Your task to perform on an android device: delete the emails in spam in the gmail app Image 0: 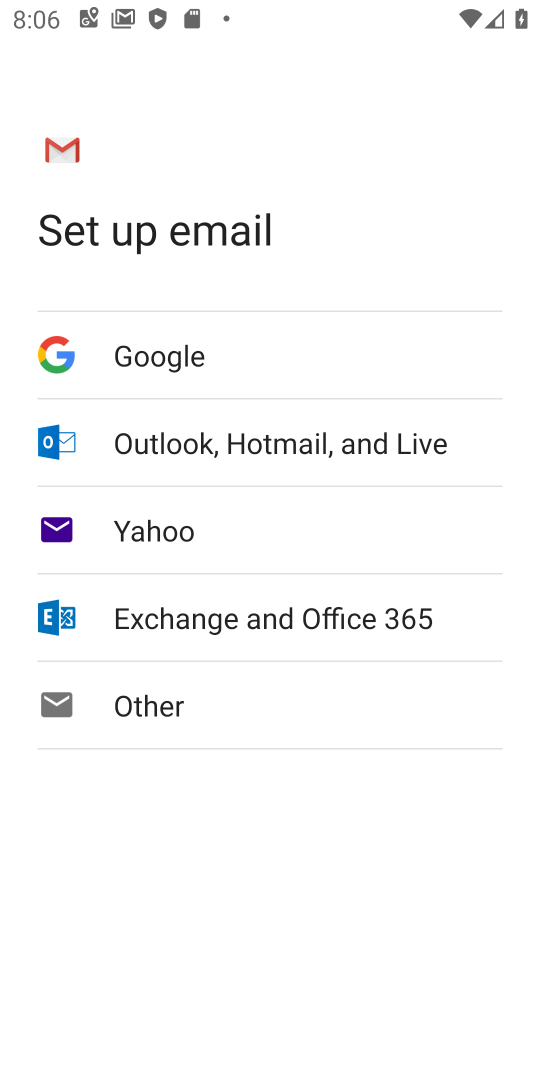
Step 0: press home button
Your task to perform on an android device: delete the emails in spam in the gmail app Image 1: 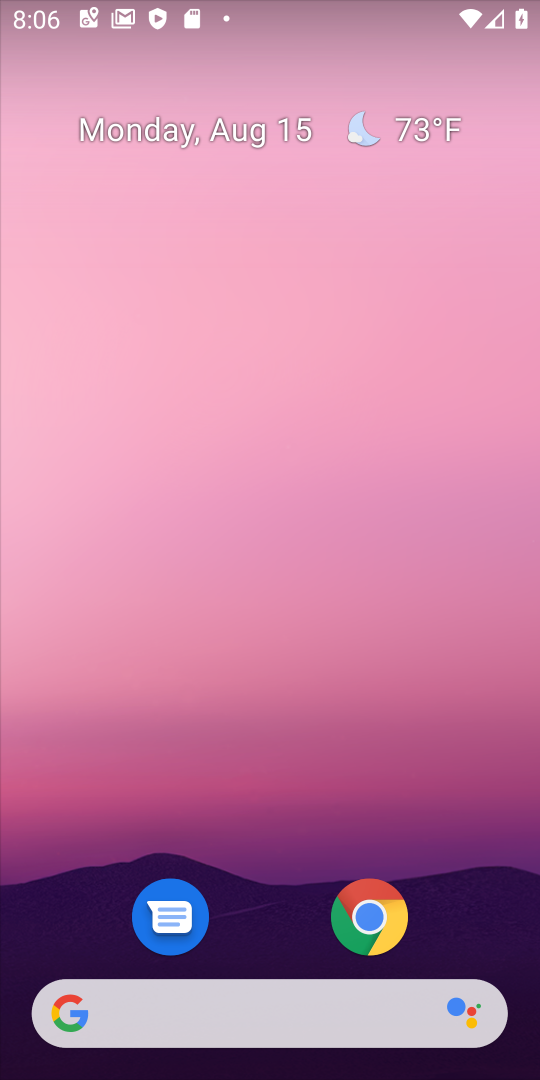
Step 1: drag from (278, 851) to (234, 26)
Your task to perform on an android device: delete the emails in spam in the gmail app Image 2: 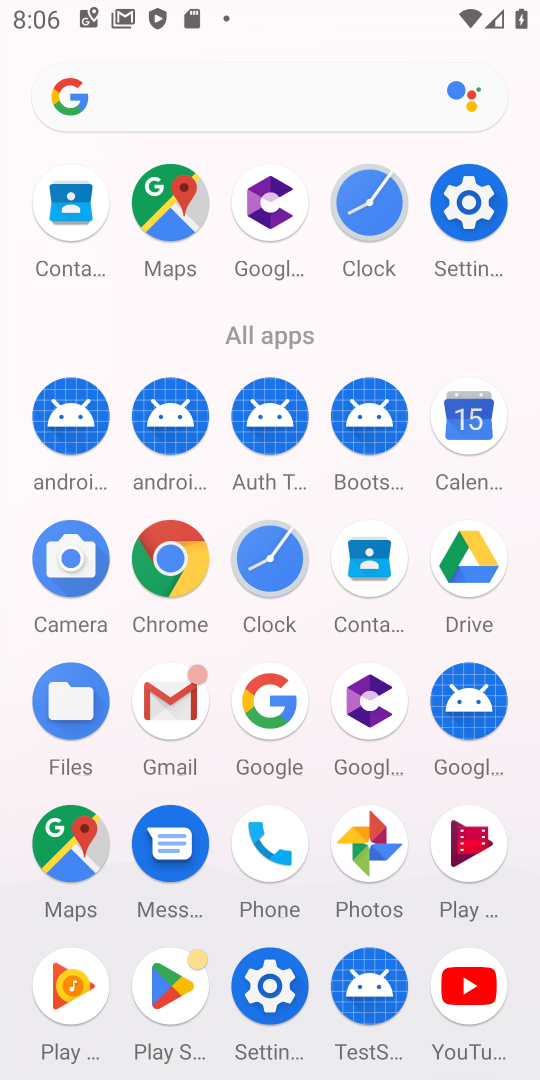
Step 2: click (172, 694)
Your task to perform on an android device: delete the emails in spam in the gmail app Image 3: 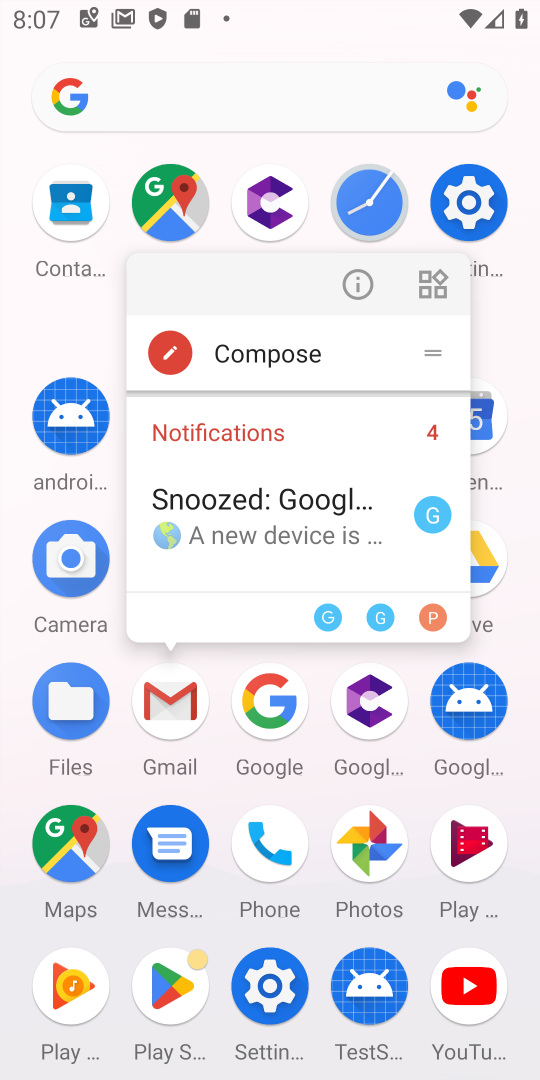
Step 3: click (179, 691)
Your task to perform on an android device: delete the emails in spam in the gmail app Image 4: 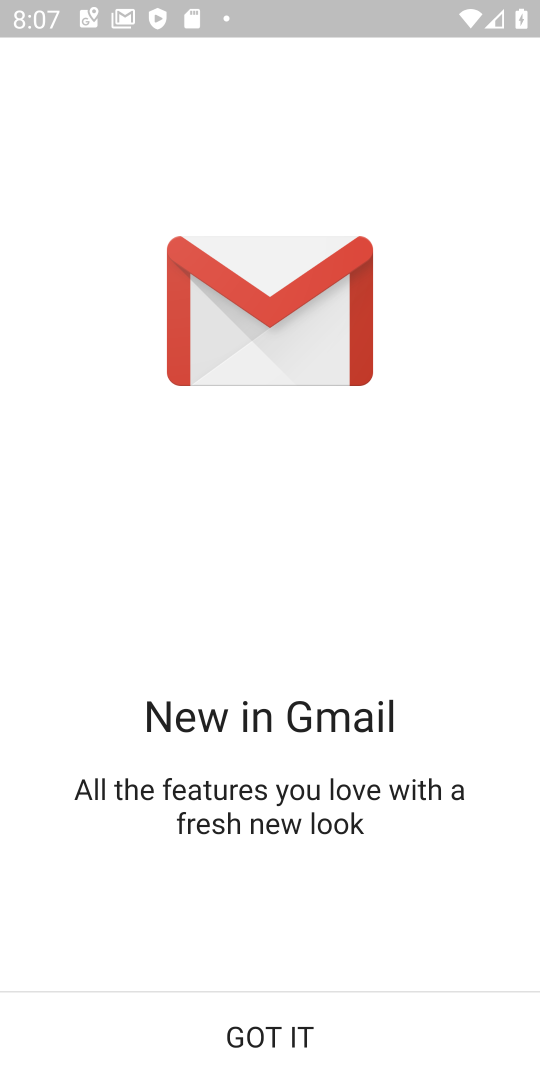
Step 4: click (277, 1036)
Your task to perform on an android device: delete the emails in spam in the gmail app Image 5: 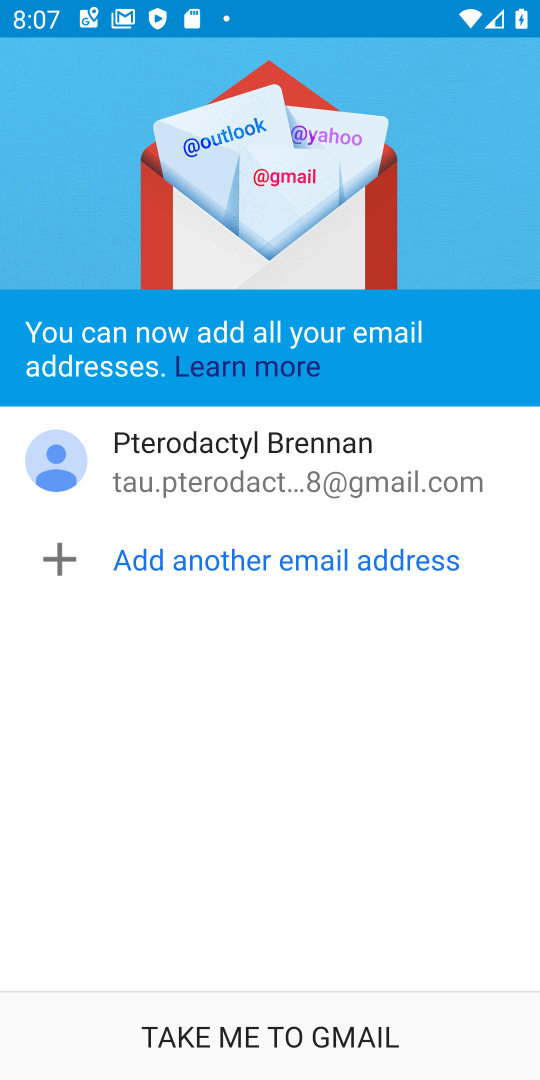
Step 5: click (277, 1036)
Your task to perform on an android device: delete the emails in spam in the gmail app Image 6: 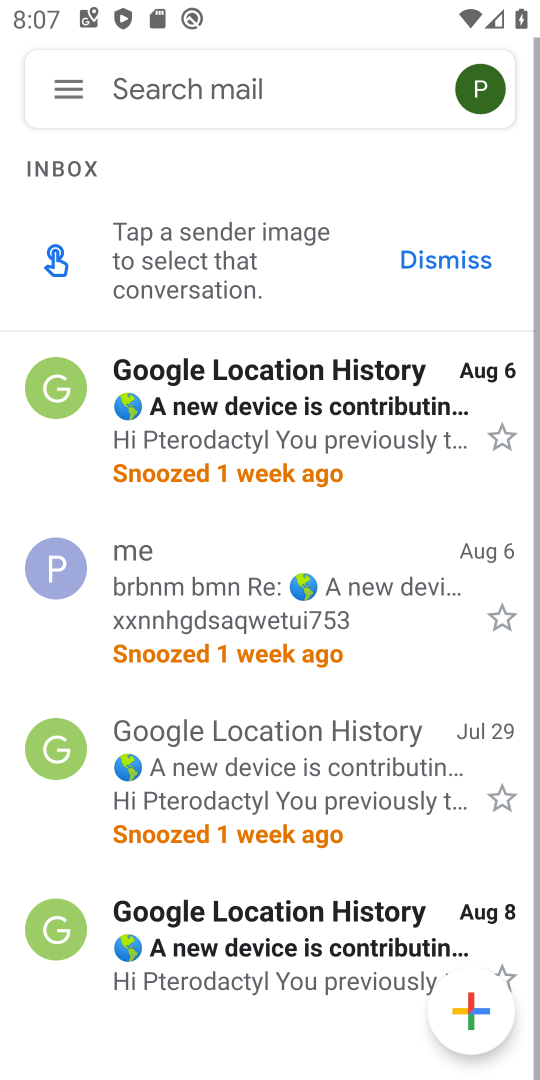
Step 6: click (70, 65)
Your task to perform on an android device: delete the emails in spam in the gmail app Image 7: 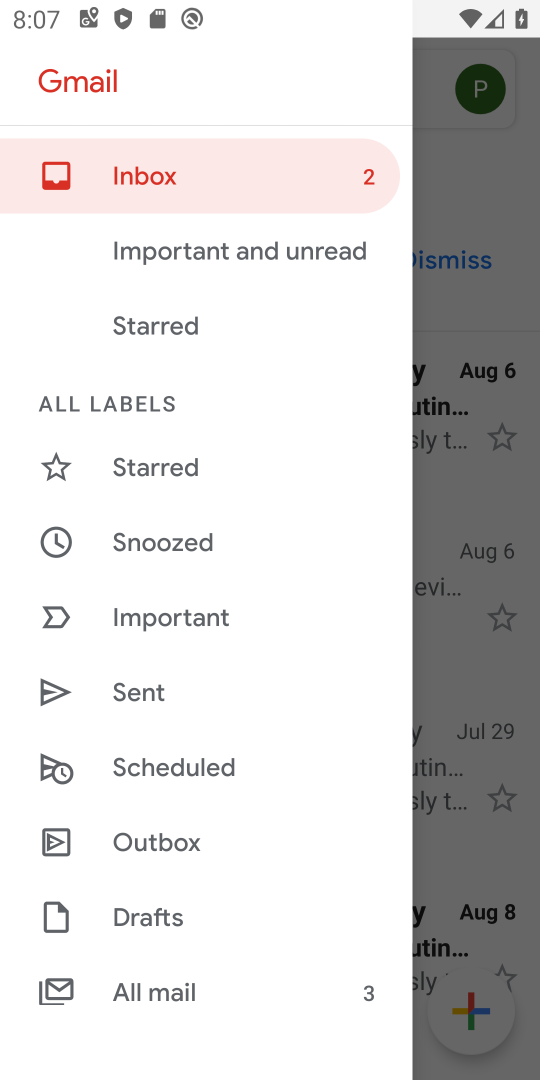
Step 7: drag from (231, 890) to (264, 244)
Your task to perform on an android device: delete the emails in spam in the gmail app Image 8: 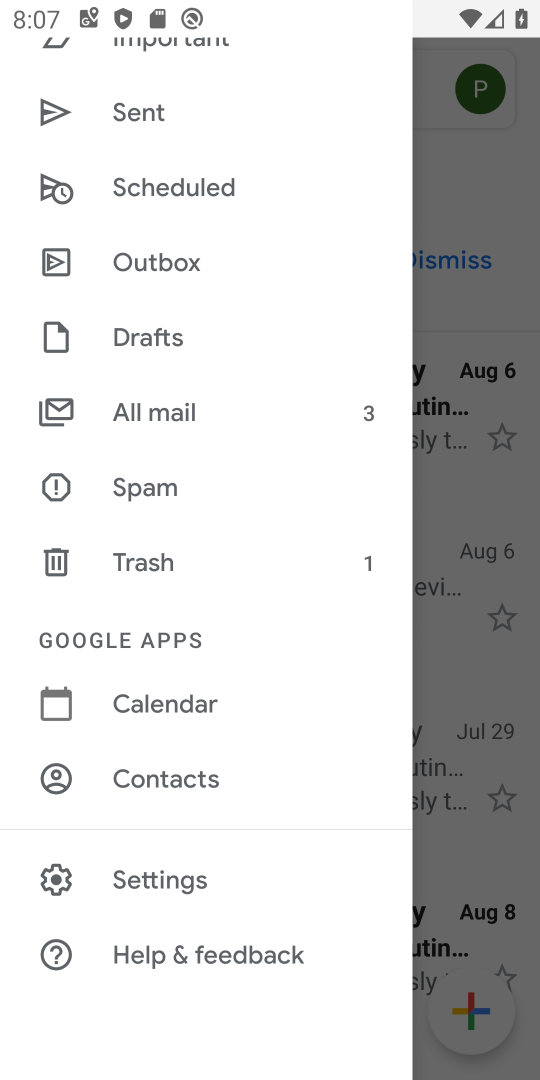
Step 8: click (146, 477)
Your task to perform on an android device: delete the emails in spam in the gmail app Image 9: 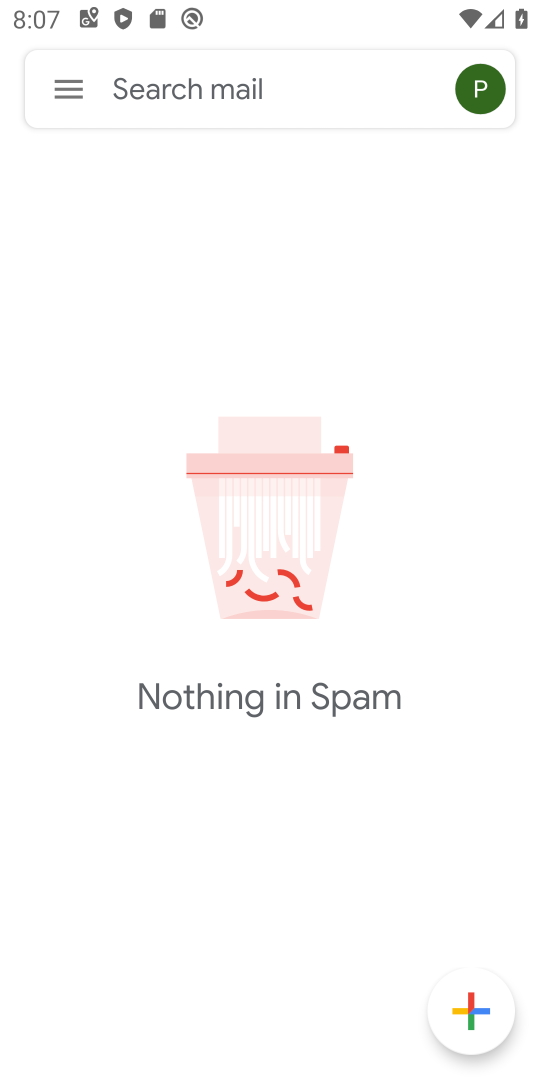
Step 9: task complete